Your task to perform on an android device: Open Yahoo.com Image 0: 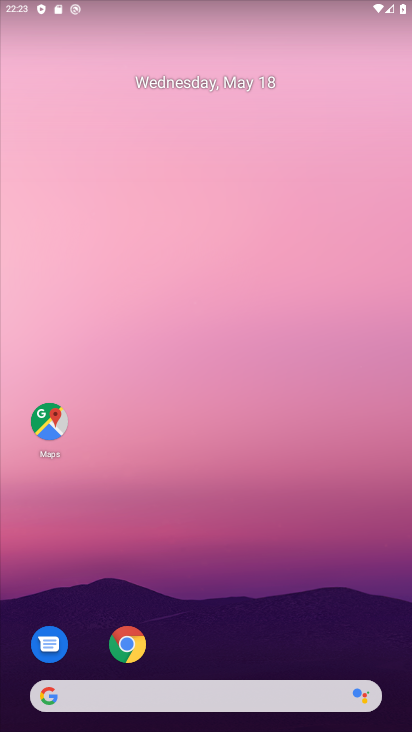
Step 0: click (130, 642)
Your task to perform on an android device: Open Yahoo.com Image 1: 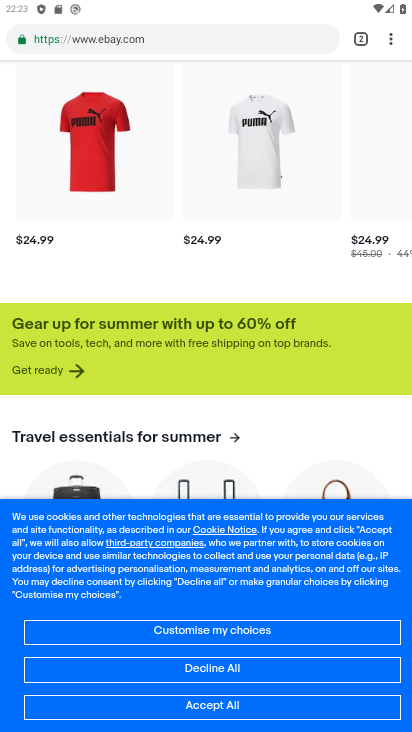
Step 1: click (156, 27)
Your task to perform on an android device: Open Yahoo.com Image 2: 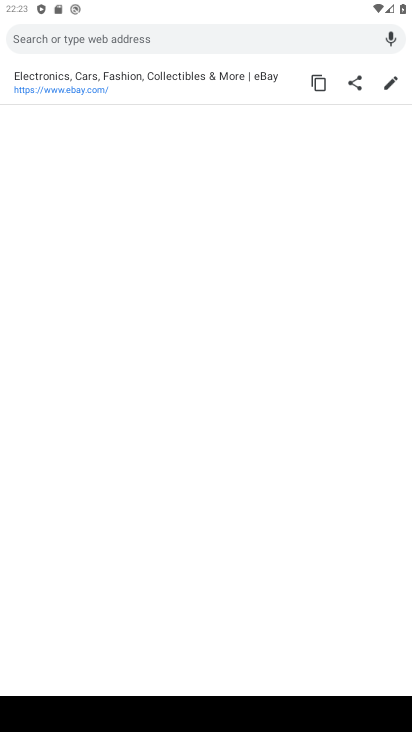
Step 2: type "yahoo.com"
Your task to perform on an android device: Open Yahoo.com Image 3: 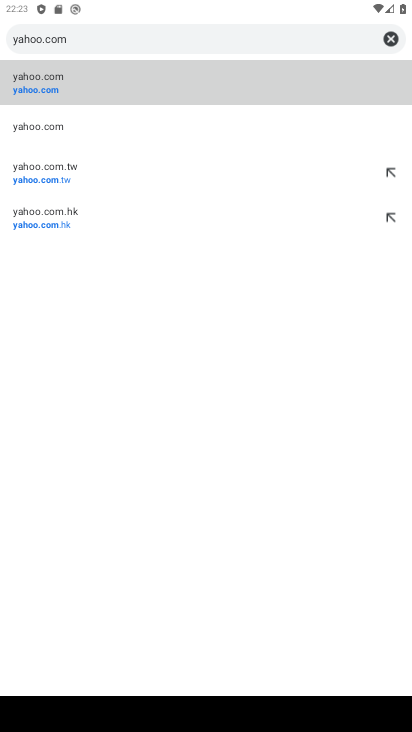
Step 3: click (38, 87)
Your task to perform on an android device: Open Yahoo.com Image 4: 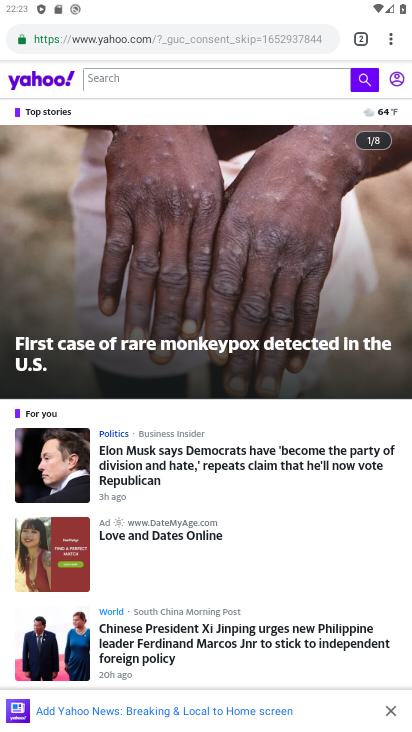
Step 4: task complete